Your task to perform on an android device: Turn on the flashlight Image 0: 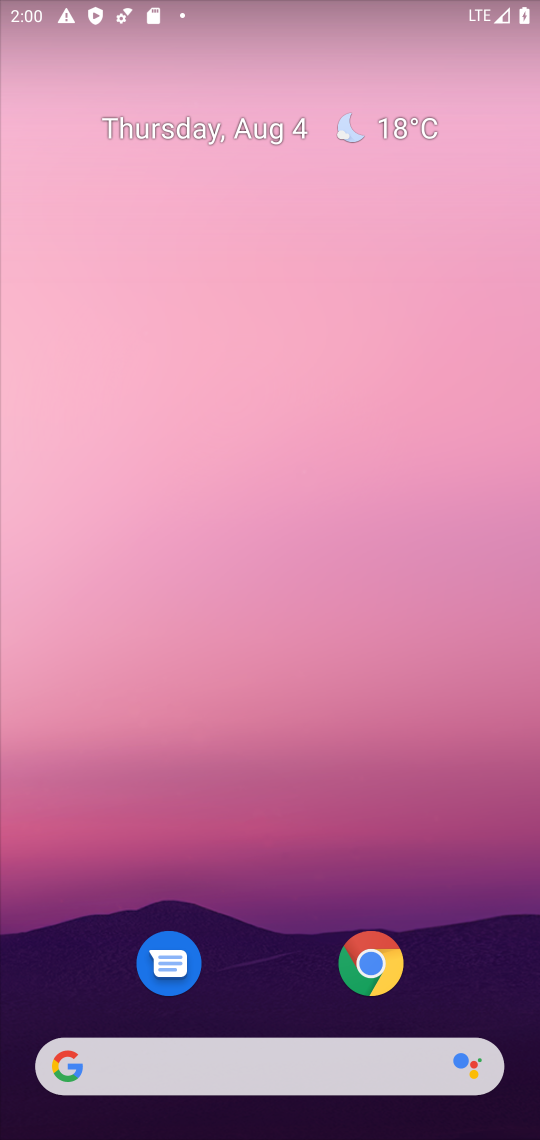
Step 0: drag from (217, 18) to (246, 664)
Your task to perform on an android device: Turn on the flashlight Image 1: 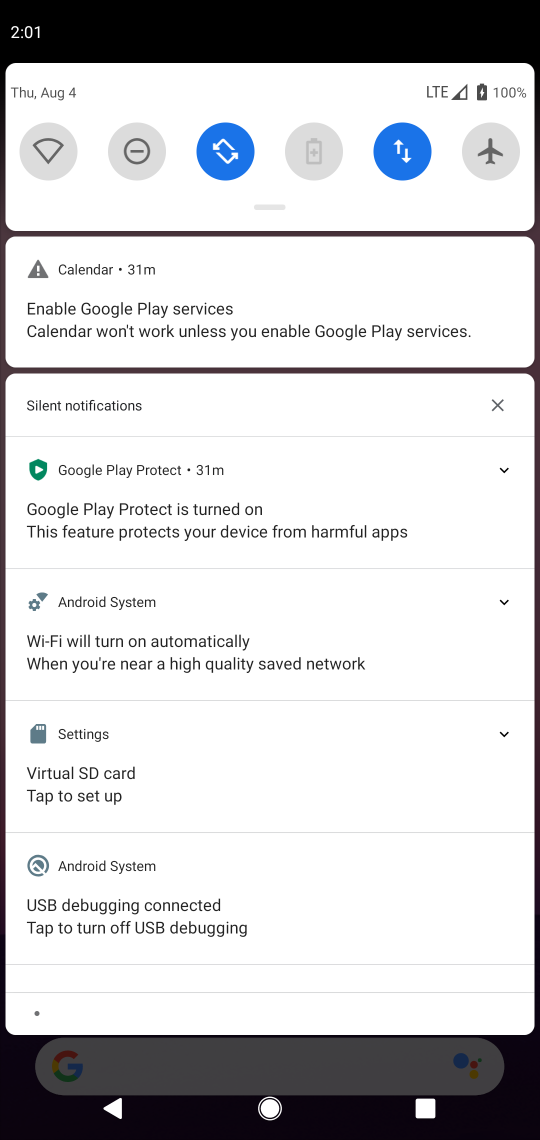
Step 1: task complete